Your task to perform on an android device: Open battery settings Image 0: 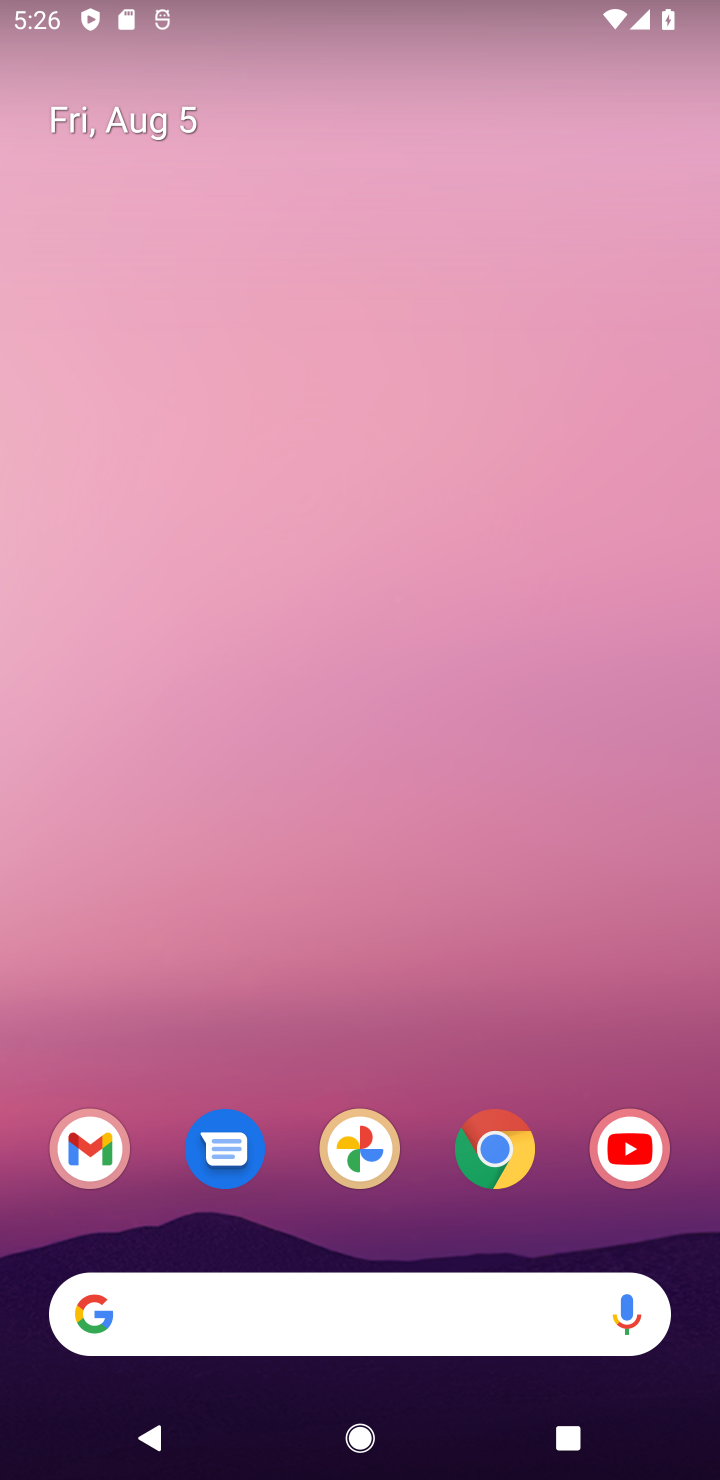
Step 0: drag from (338, 1042) to (291, 241)
Your task to perform on an android device: Open battery settings Image 1: 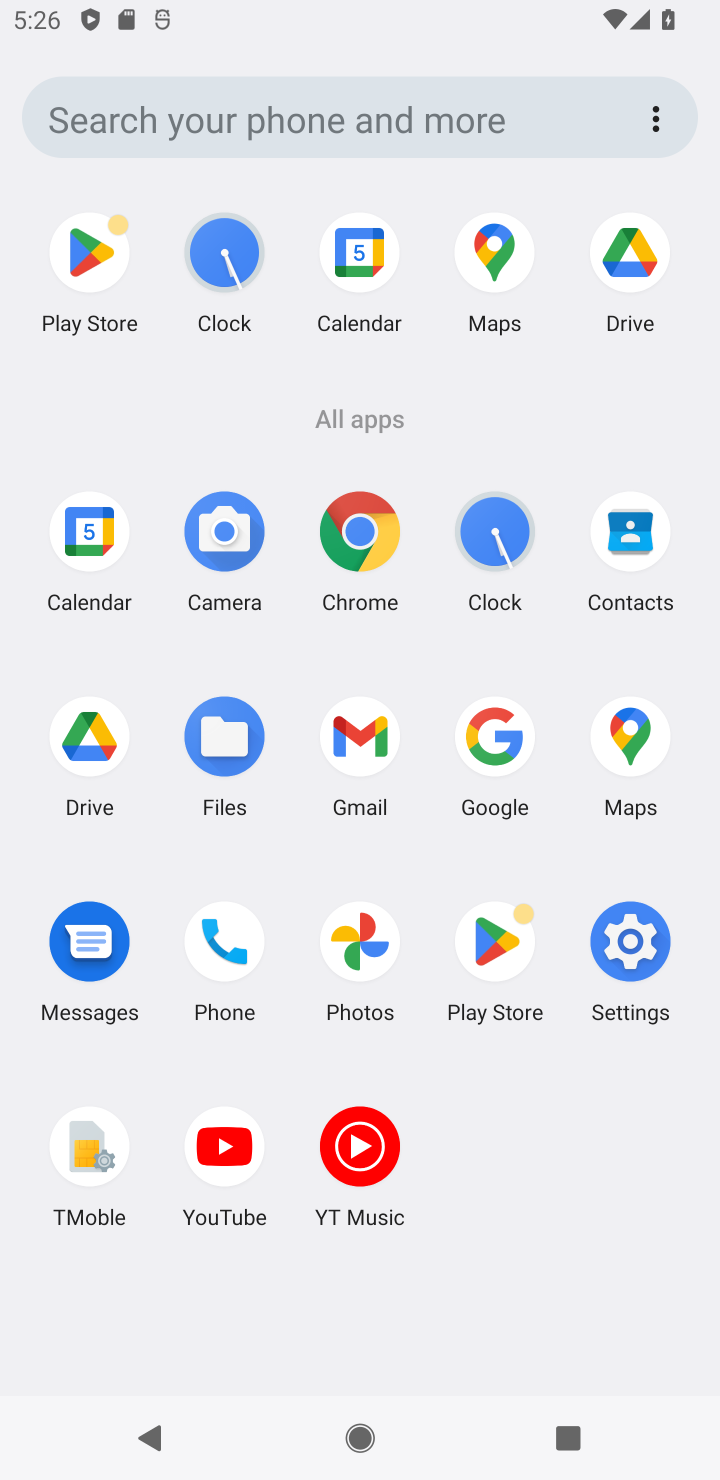
Step 1: click (623, 949)
Your task to perform on an android device: Open battery settings Image 2: 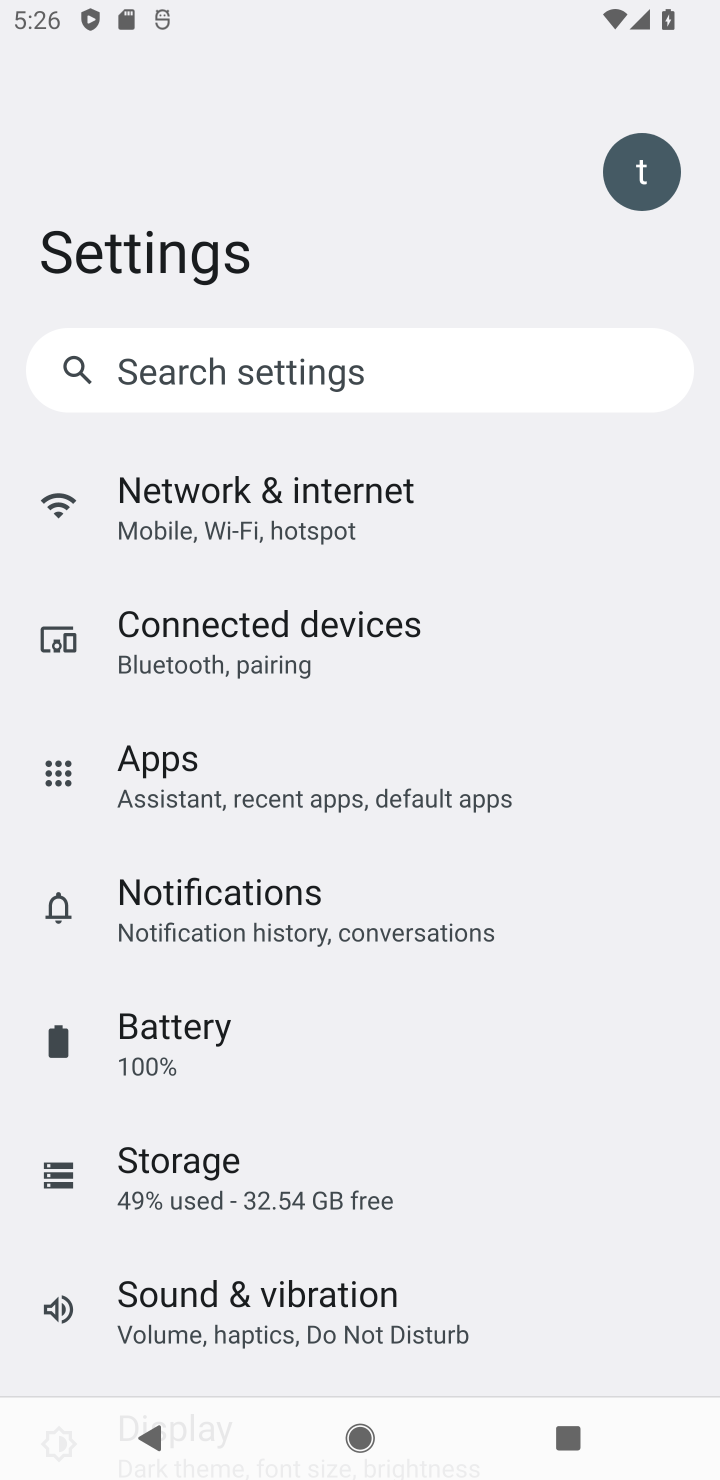
Step 2: click (184, 1038)
Your task to perform on an android device: Open battery settings Image 3: 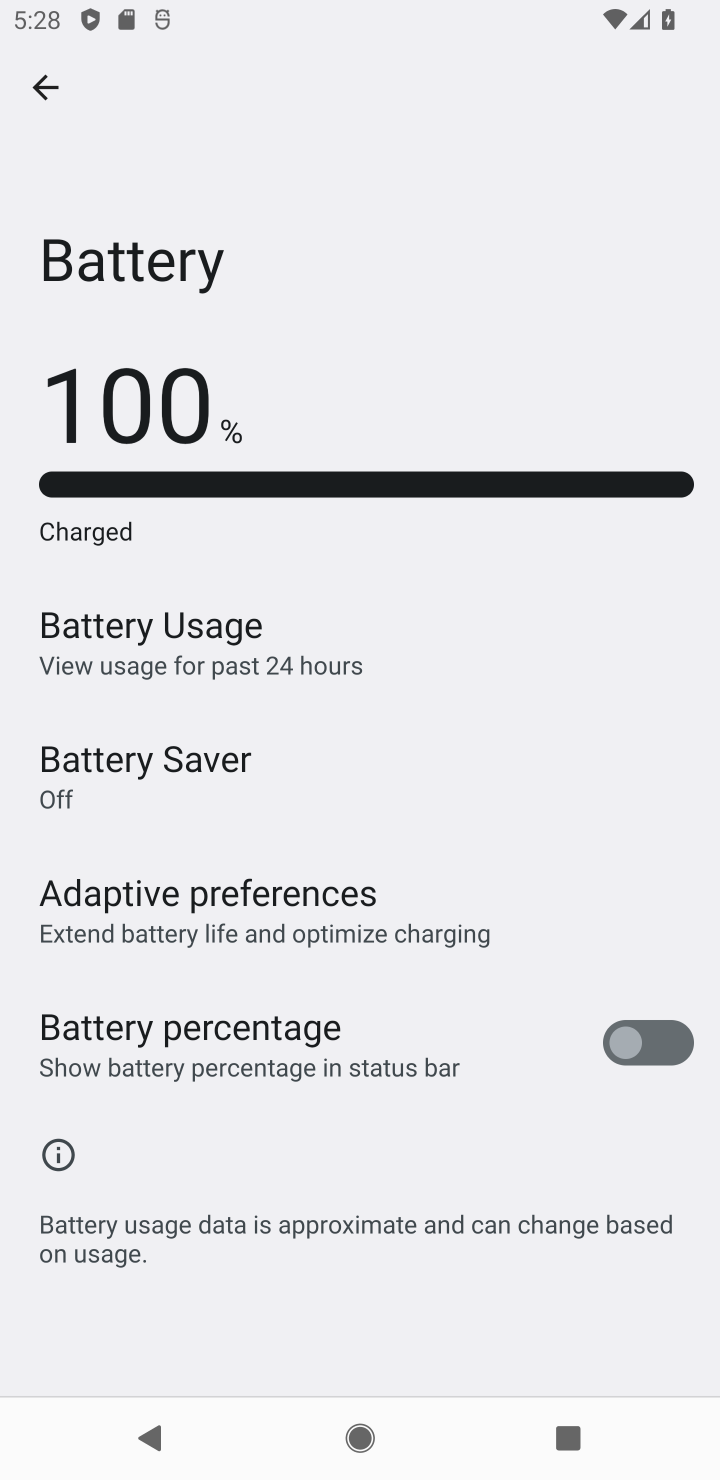
Step 3: task complete